Your task to perform on an android device: Open Reddit.com Image 0: 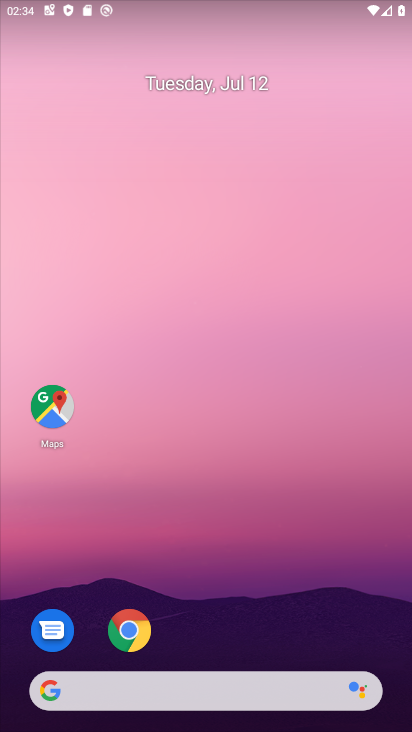
Step 0: click (126, 631)
Your task to perform on an android device: Open Reddit.com Image 1: 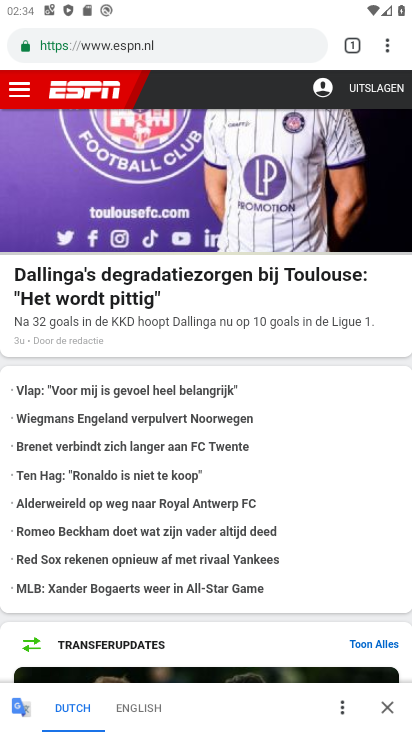
Step 1: click (196, 43)
Your task to perform on an android device: Open Reddit.com Image 2: 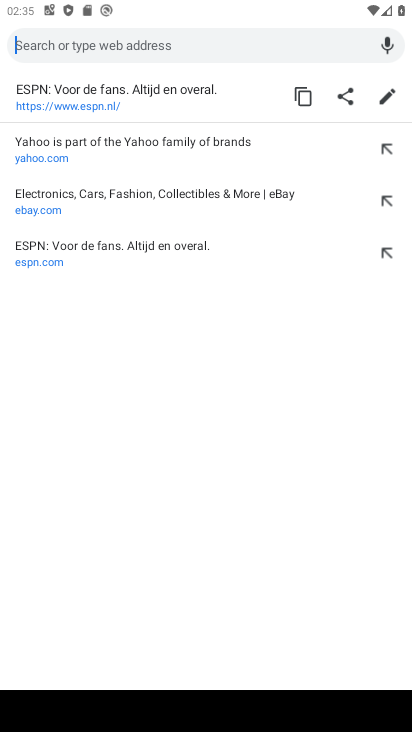
Step 2: type "reddit.com"
Your task to perform on an android device: Open Reddit.com Image 3: 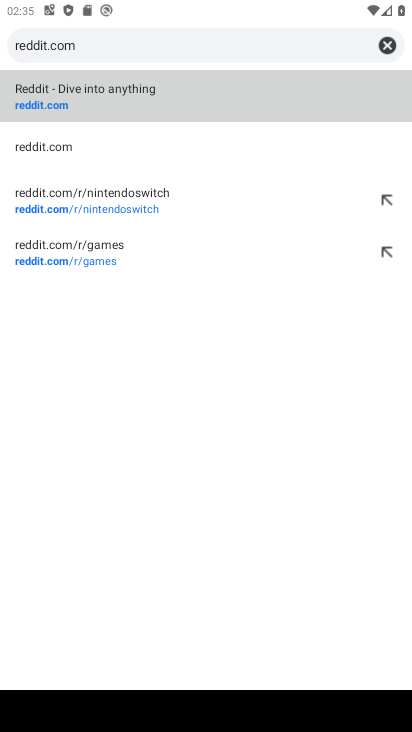
Step 3: click (62, 101)
Your task to perform on an android device: Open Reddit.com Image 4: 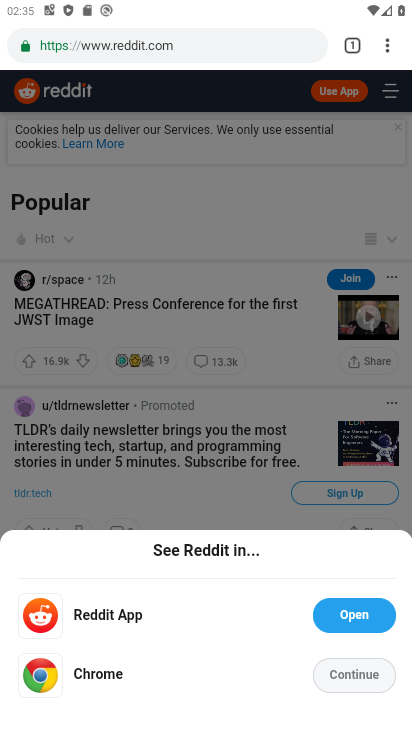
Step 4: task complete